Your task to perform on an android device: Go to battery settings Image 0: 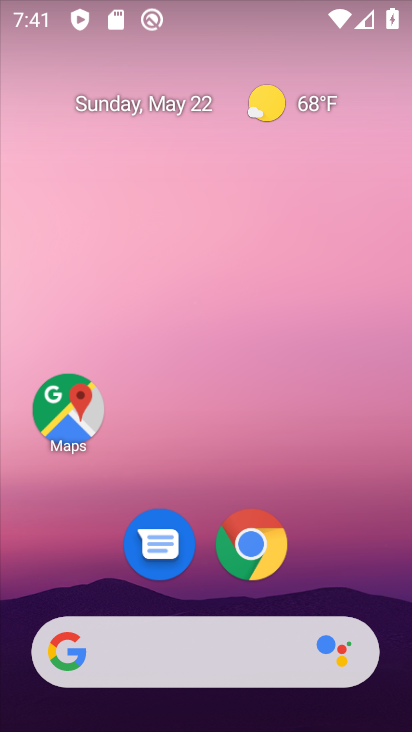
Step 0: drag from (398, 703) to (390, 201)
Your task to perform on an android device: Go to battery settings Image 1: 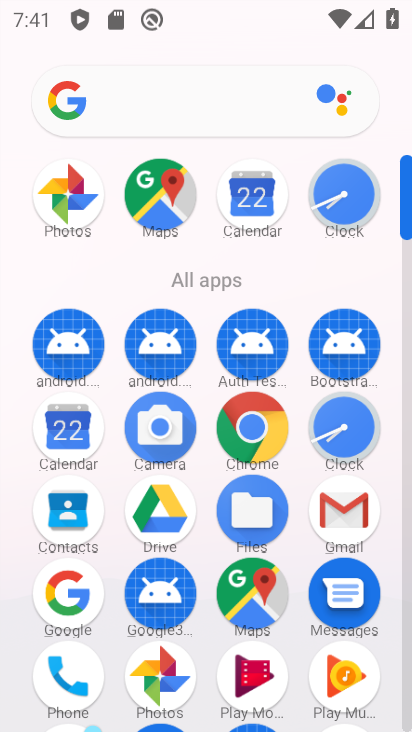
Step 1: drag from (401, 165) to (405, 84)
Your task to perform on an android device: Go to battery settings Image 2: 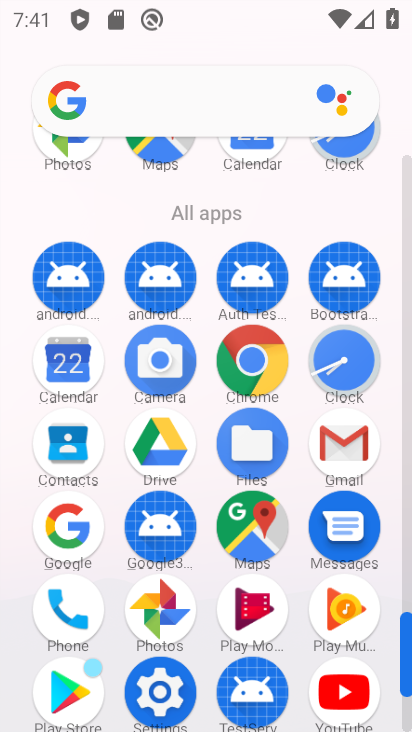
Step 2: click (166, 692)
Your task to perform on an android device: Go to battery settings Image 3: 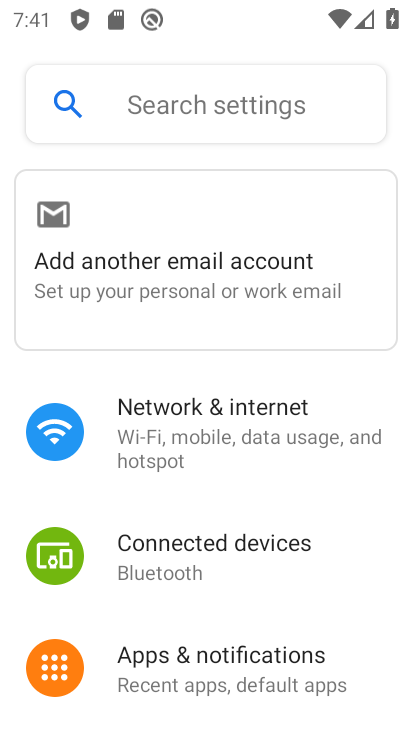
Step 3: drag from (376, 701) to (388, 496)
Your task to perform on an android device: Go to battery settings Image 4: 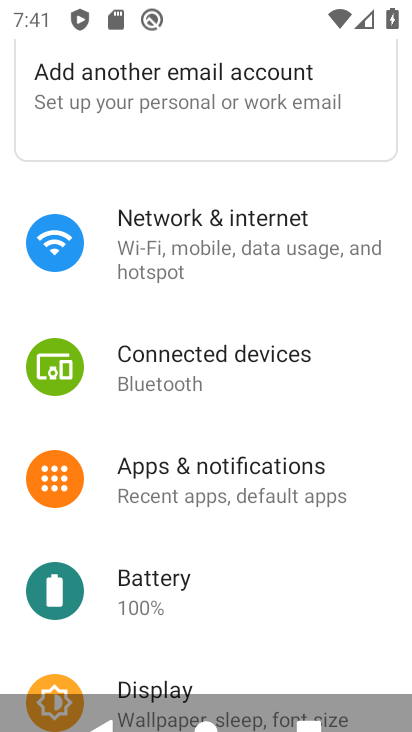
Step 4: click (142, 577)
Your task to perform on an android device: Go to battery settings Image 5: 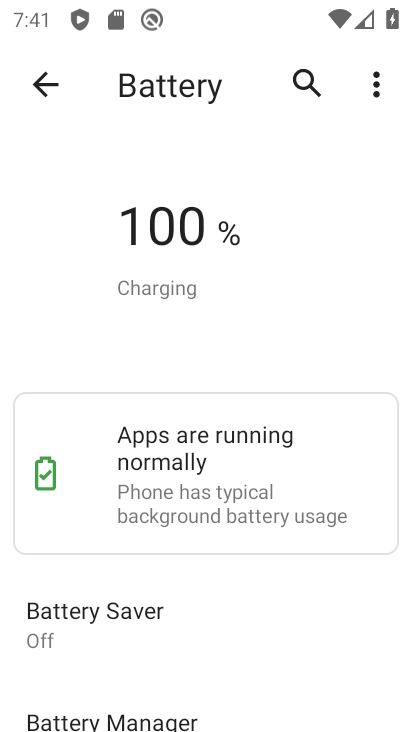
Step 5: task complete